Your task to perform on an android device: turn off smart reply in the gmail app Image 0: 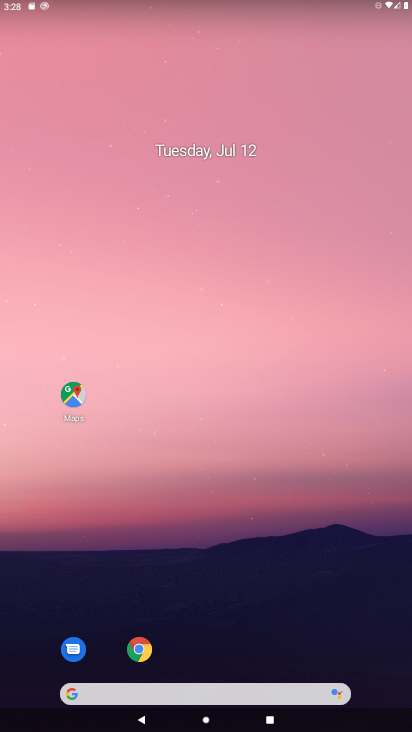
Step 0: drag from (307, 647) to (229, 192)
Your task to perform on an android device: turn off smart reply in the gmail app Image 1: 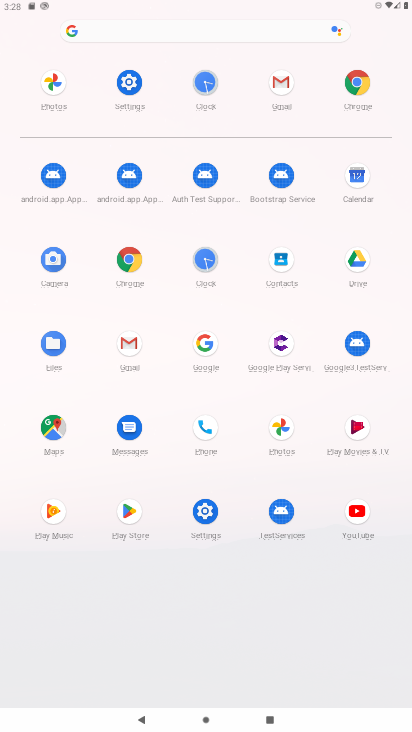
Step 1: click (274, 100)
Your task to perform on an android device: turn off smart reply in the gmail app Image 2: 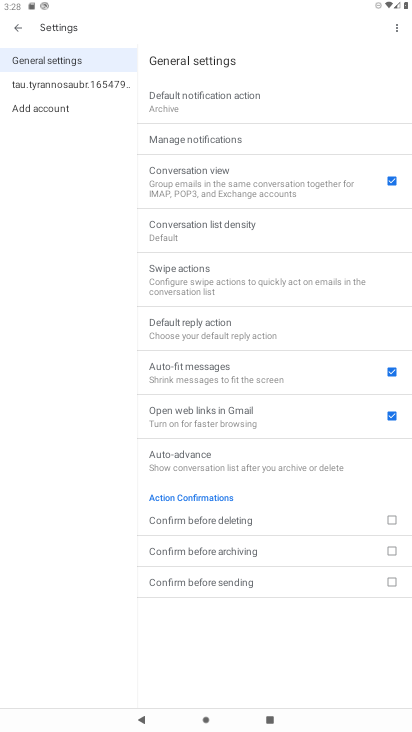
Step 2: click (50, 89)
Your task to perform on an android device: turn off smart reply in the gmail app Image 3: 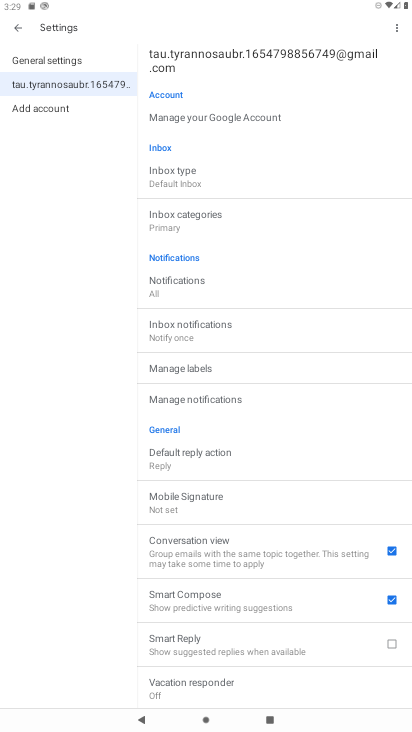
Step 3: task complete